Your task to perform on an android device: turn on showing notifications on the lock screen Image 0: 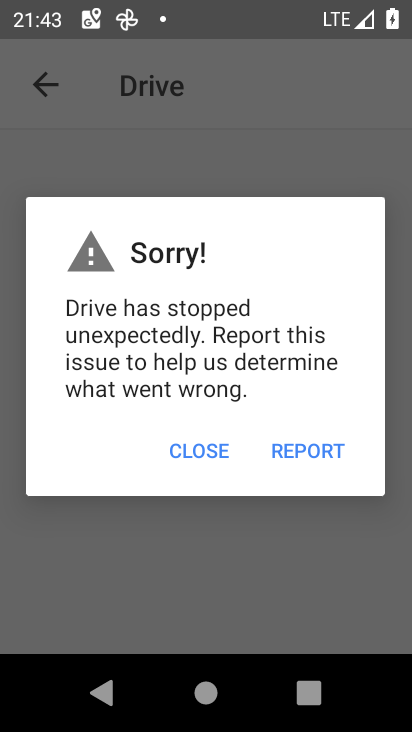
Step 0: press home button
Your task to perform on an android device: turn on showing notifications on the lock screen Image 1: 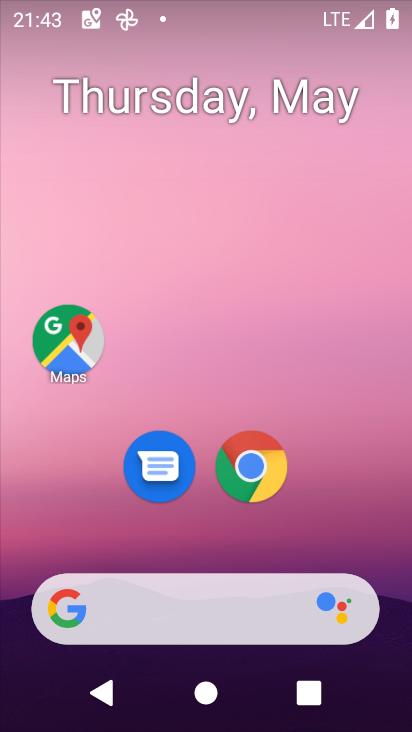
Step 1: drag from (316, 520) to (286, 77)
Your task to perform on an android device: turn on showing notifications on the lock screen Image 2: 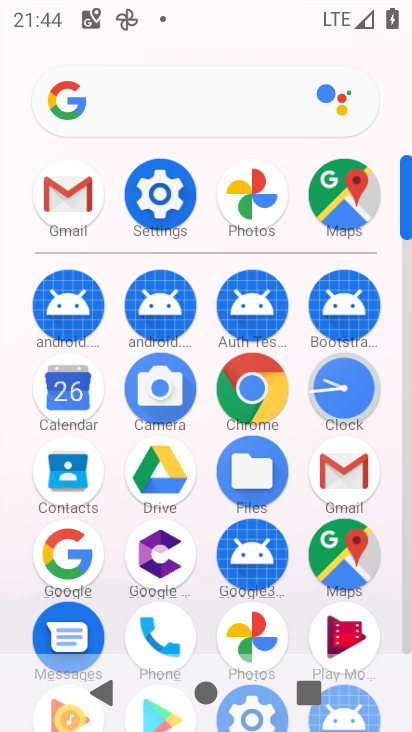
Step 2: click (177, 190)
Your task to perform on an android device: turn on showing notifications on the lock screen Image 3: 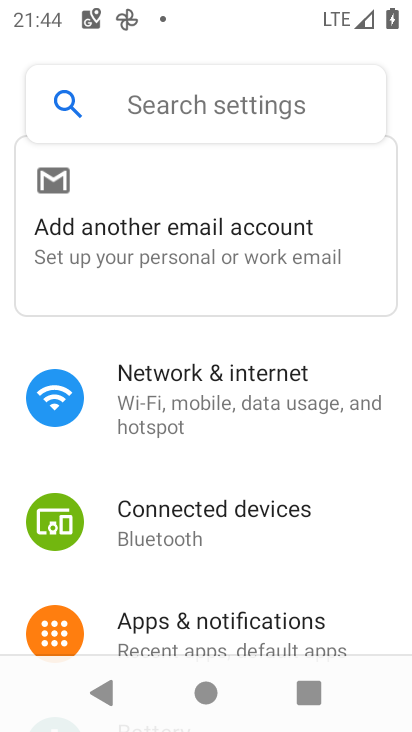
Step 3: drag from (285, 560) to (282, 148)
Your task to perform on an android device: turn on showing notifications on the lock screen Image 4: 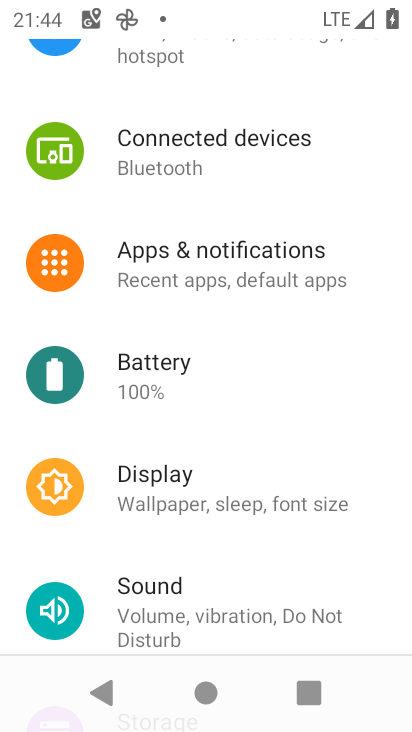
Step 4: drag from (223, 477) to (236, 253)
Your task to perform on an android device: turn on showing notifications on the lock screen Image 5: 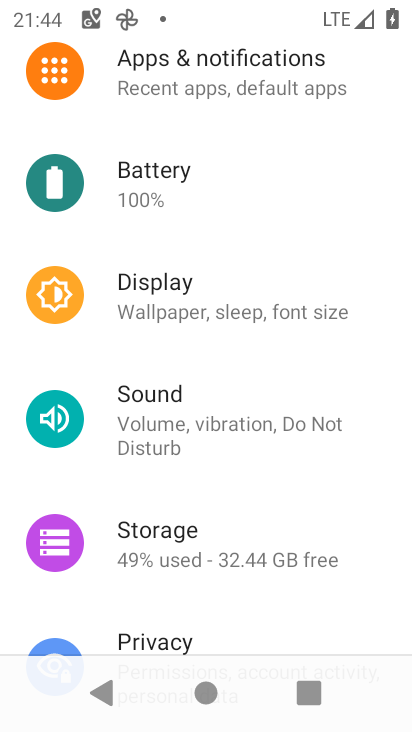
Step 5: click (189, 111)
Your task to perform on an android device: turn on showing notifications on the lock screen Image 6: 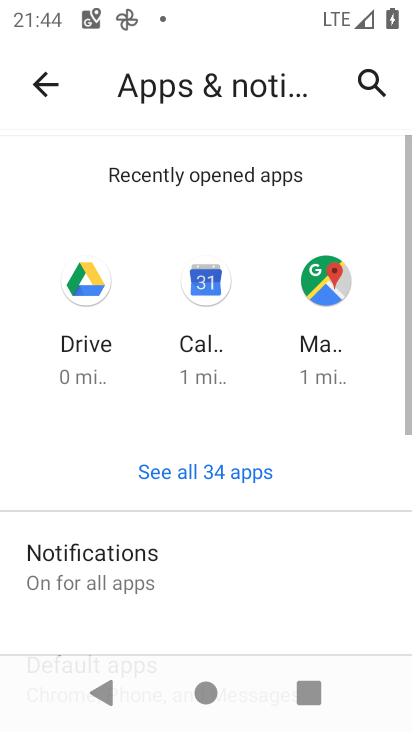
Step 6: drag from (162, 622) to (175, 356)
Your task to perform on an android device: turn on showing notifications on the lock screen Image 7: 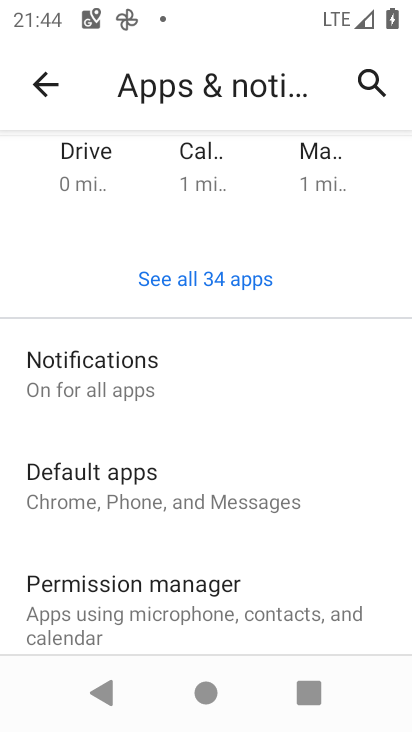
Step 7: drag from (149, 565) to (159, 204)
Your task to perform on an android device: turn on showing notifications on the lock screen Image 8: 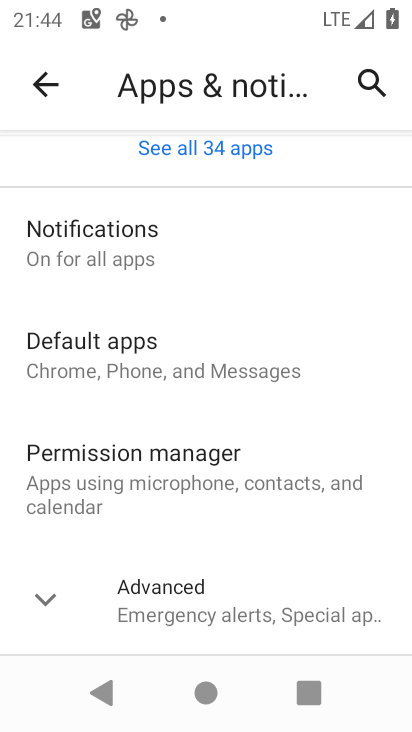
Step 8: click (136, 616)
Your task to perform on an android device: turn on showing notifications on the lock screen Image 9: 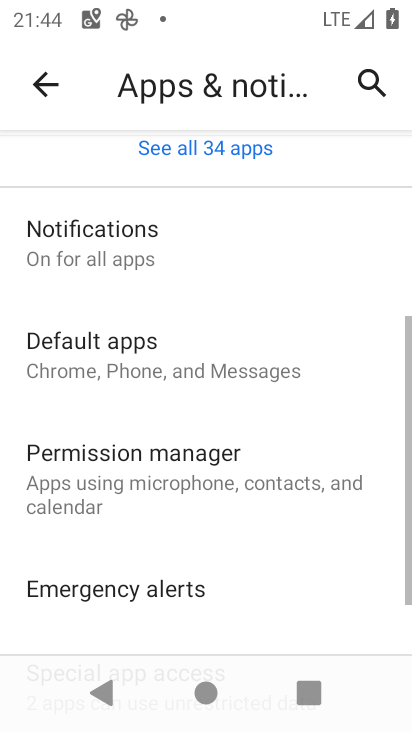
Step 9: drag from (186, 556) to (194, 351)
Your task to perform on an android device: turn on showing notifications on the lock screen Image 10: 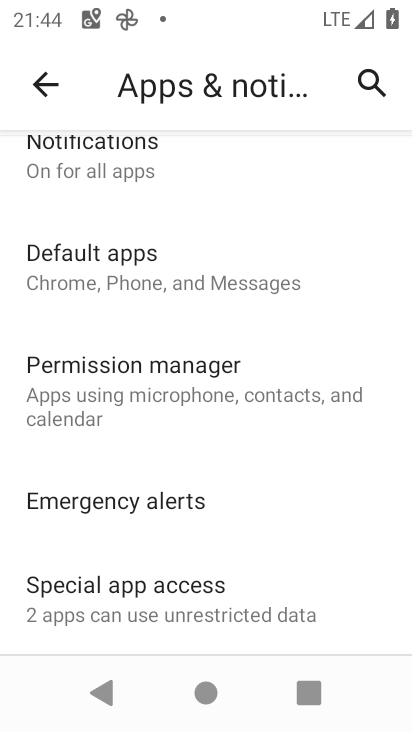
Step 10: click (135, 149)
Your task to perform on an android device: turn on showing notifications on the lock screen Image 11: 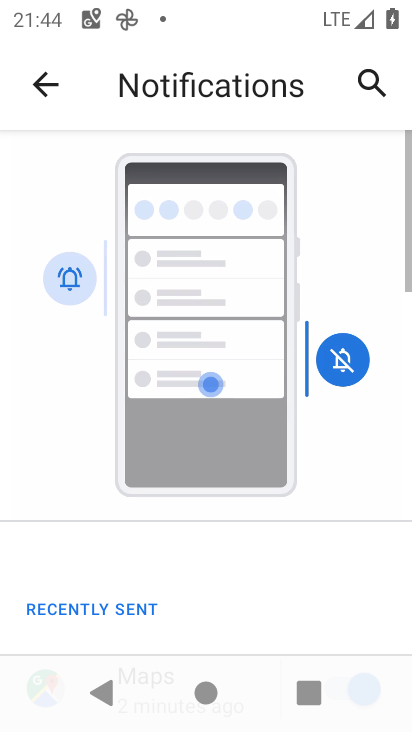
Step 11: drag from (191, 521) to (231, 53)
Your task to perform on an android device: turn on showing notifications on the lock screen Image 12: 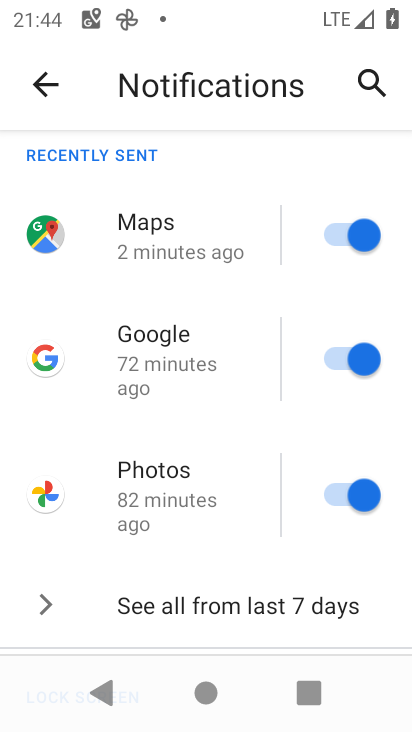
Step 12: drag from (196, 580) to (194, 74)
Your task to perform on an android device: turn on showing notifications on the lock screen Image 13: 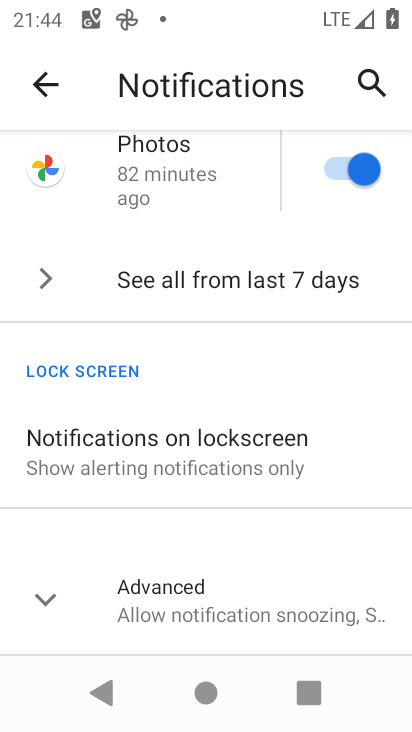
Step 13: click (222, 601)
Your task to perform on an android device: turn on showing notifications on the lock screen Image 14: 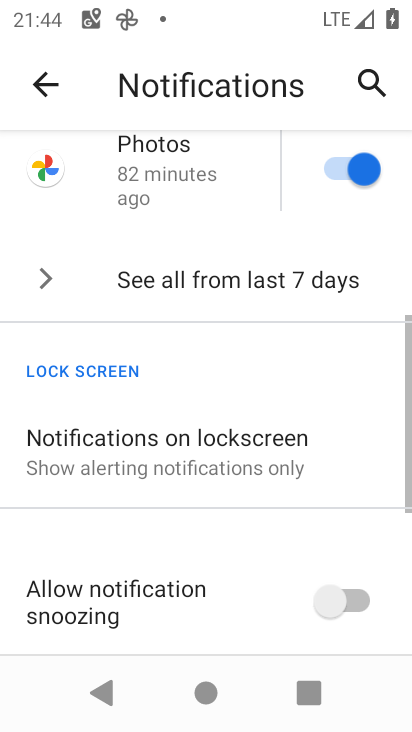
Step 14: click (195, 489)
Your task to perform on an android device: turn on showing notifications on the lock screen Image 15: 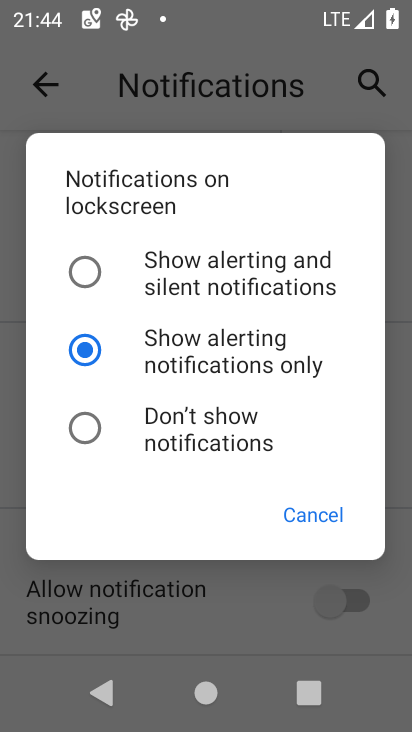
Step 15: click (247, 293)
Your task to perform on an android device: turn on showing notifications on the lock screen Image 16: 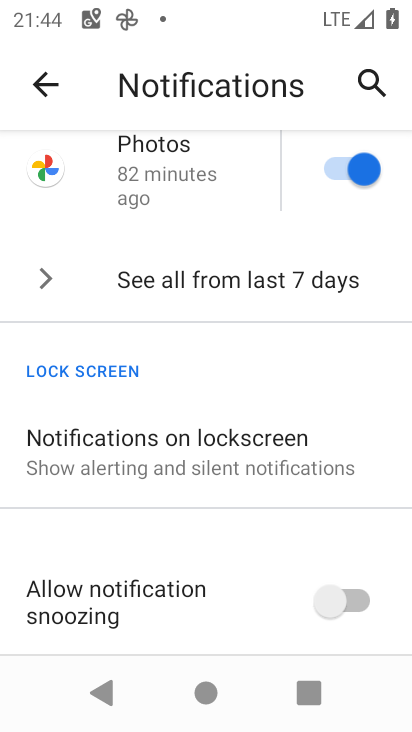
Step 16: task complete